Your task to perform on an android device: Find coffee shops on Maps Image 0: 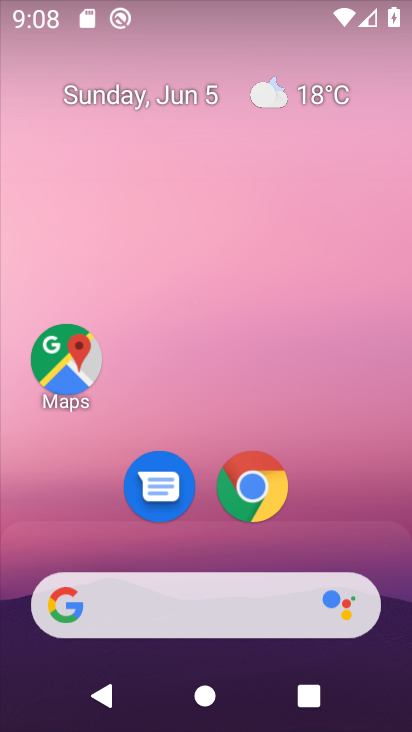
Step 0: drag from (311, 512) to (312, 210)
Your task to perform on an android device: Find coffee shops on Maps Image 1: 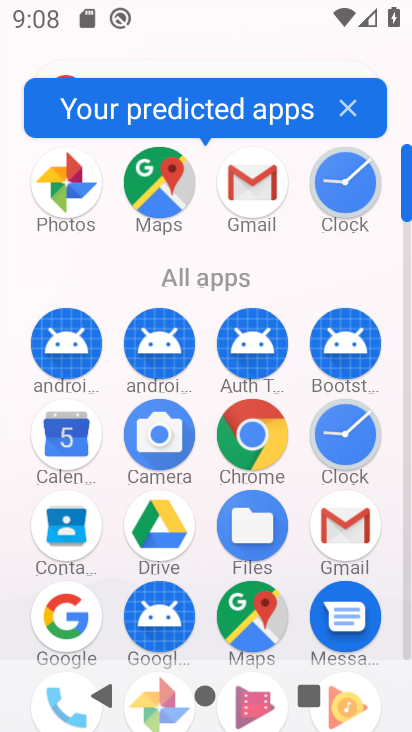
Step 1: click (237, 624)
Your task to perform on an android device: Find coffee shops on Maps Image 2: 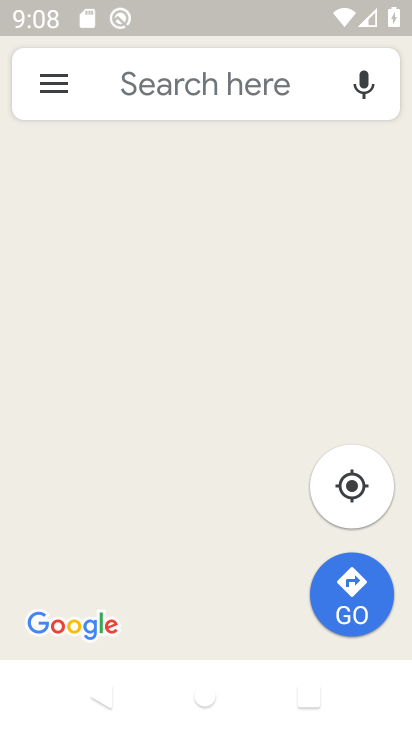
Step 2: click (198, 83)
Your task to perform on an android device: Find coffee shops on Maps Image 3: 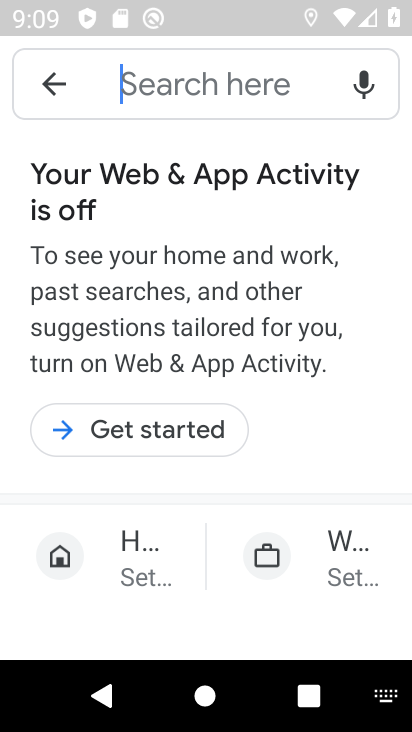
Step 3: type "coffee shops"
Your task to perform on an android device: Find coffee shops on Maps Image 4: 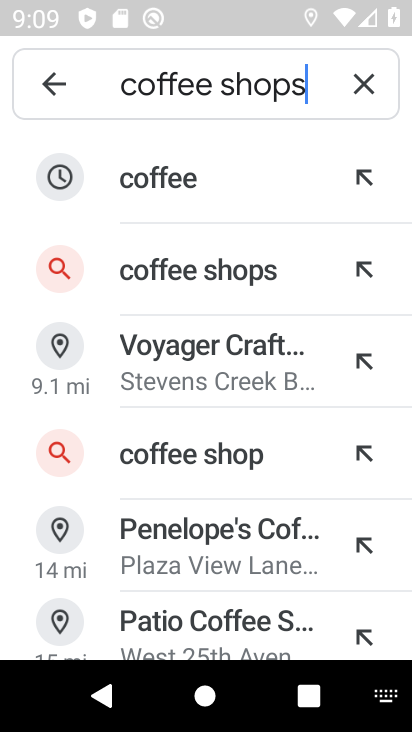
Step 4: click (209, 274)
Your task to perform on an android device: Find coffee shops on Maps Image 5: 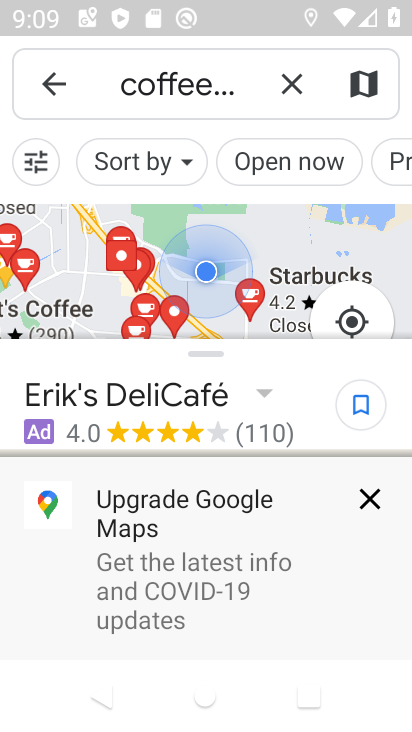
Step 5: task complete